Your task to perform on an android device: Go to Amazon Image 0: 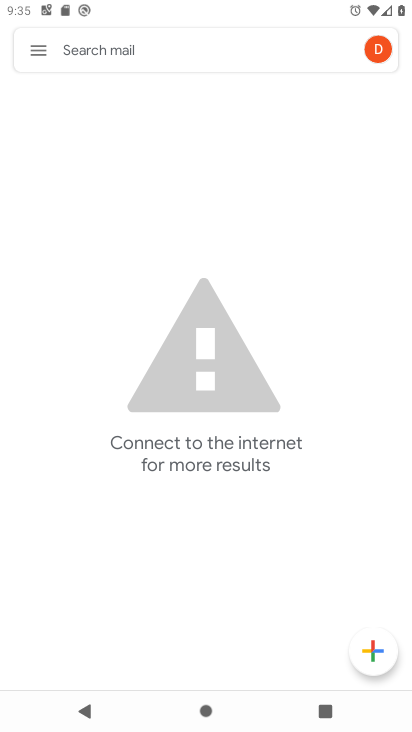
Step 0: press home button
Your task to perform on an android device: Go to Amazon Image 1: 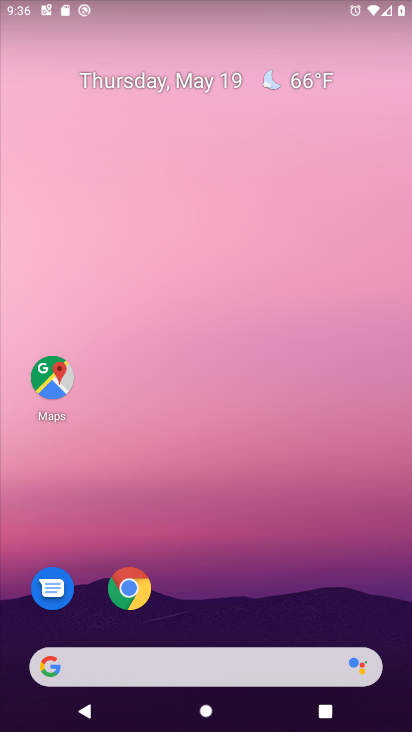
Step 1: drag from (321, 537) to (314, 152)
Your task to perform on an android device: Go to Amazon Image 2: 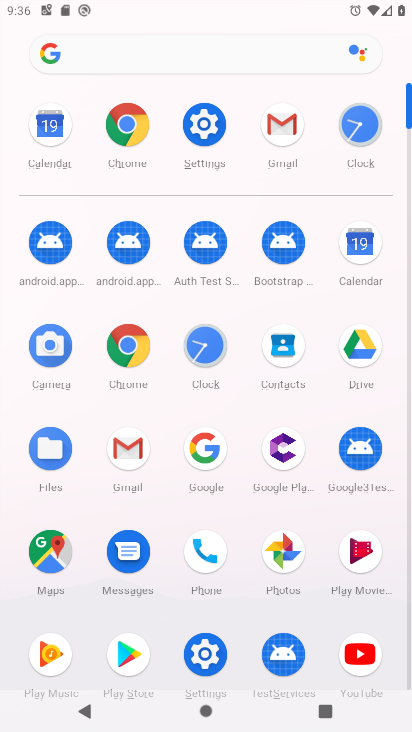
Step 2: click (141, 344)
Your task to perform on an android device: Go to Amazon Image 3: 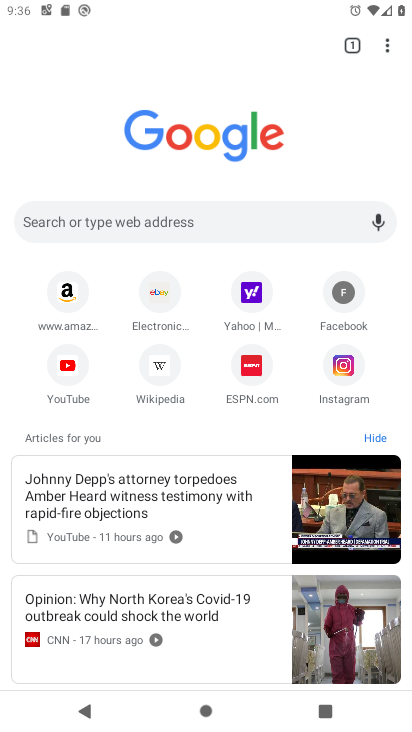
Step 3: click (75, 304)
Your task to perform on an android device: Go to Amazon Image 4: 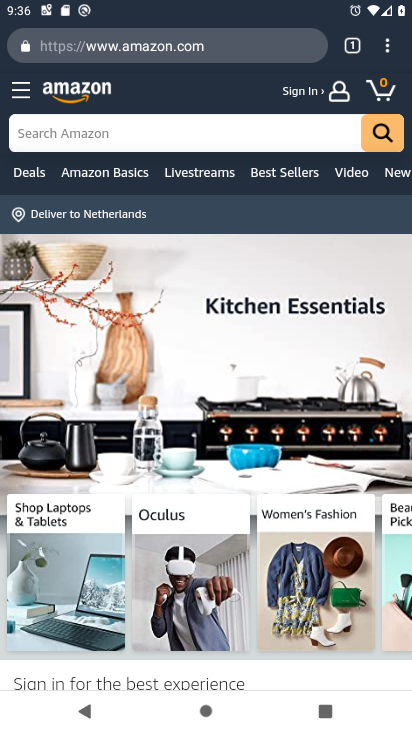
Step 4: task complete